Your task to perform on an android device: open app "Roku - Official Remote Control" (install if not already installed) Image 0: 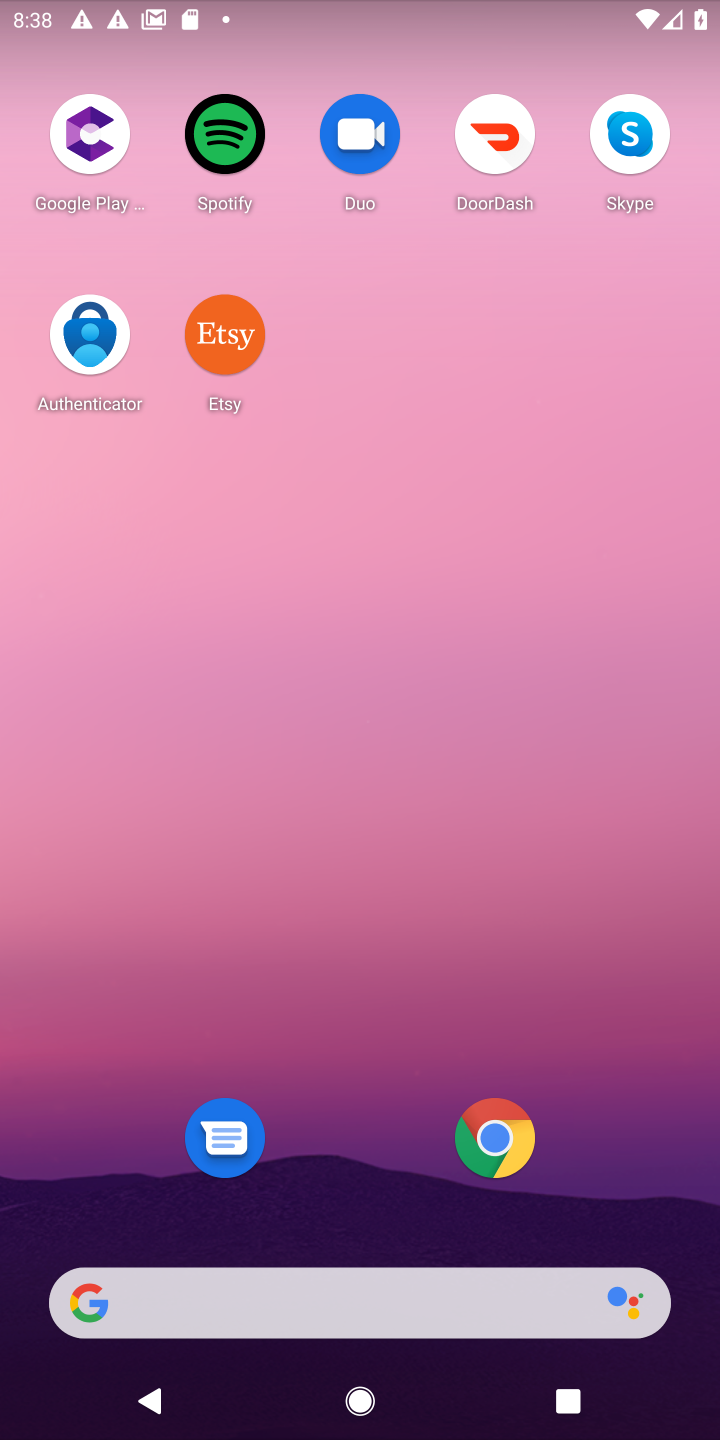
Step 0: drag from (447, 1210) to (481, 99)
Your task to perform on an android device: open app "Roku - Official Remote Control" (install if not already installed) Image 1: 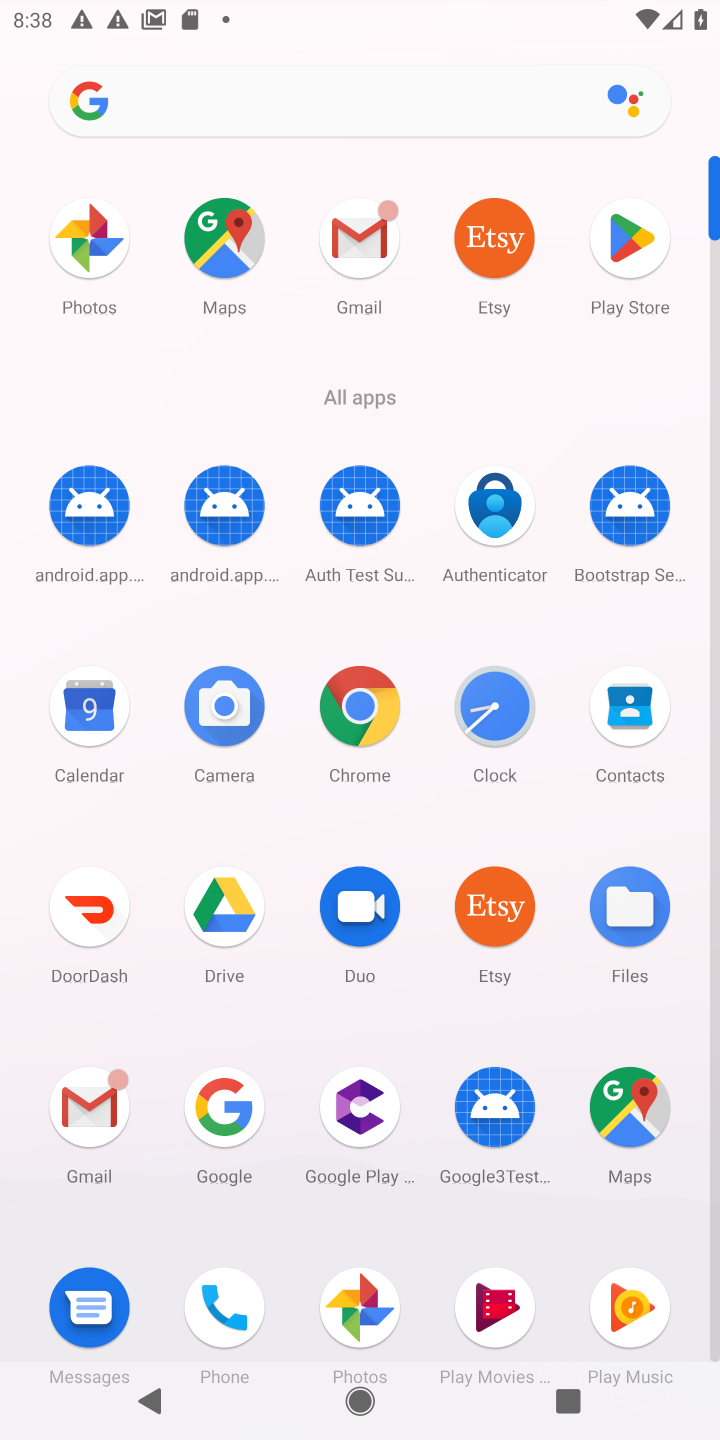
Step 1: click (623, 267)
Your task to perform on an android device: open app "Roku - Official Remote Control" (install if not already installed) Image 2: 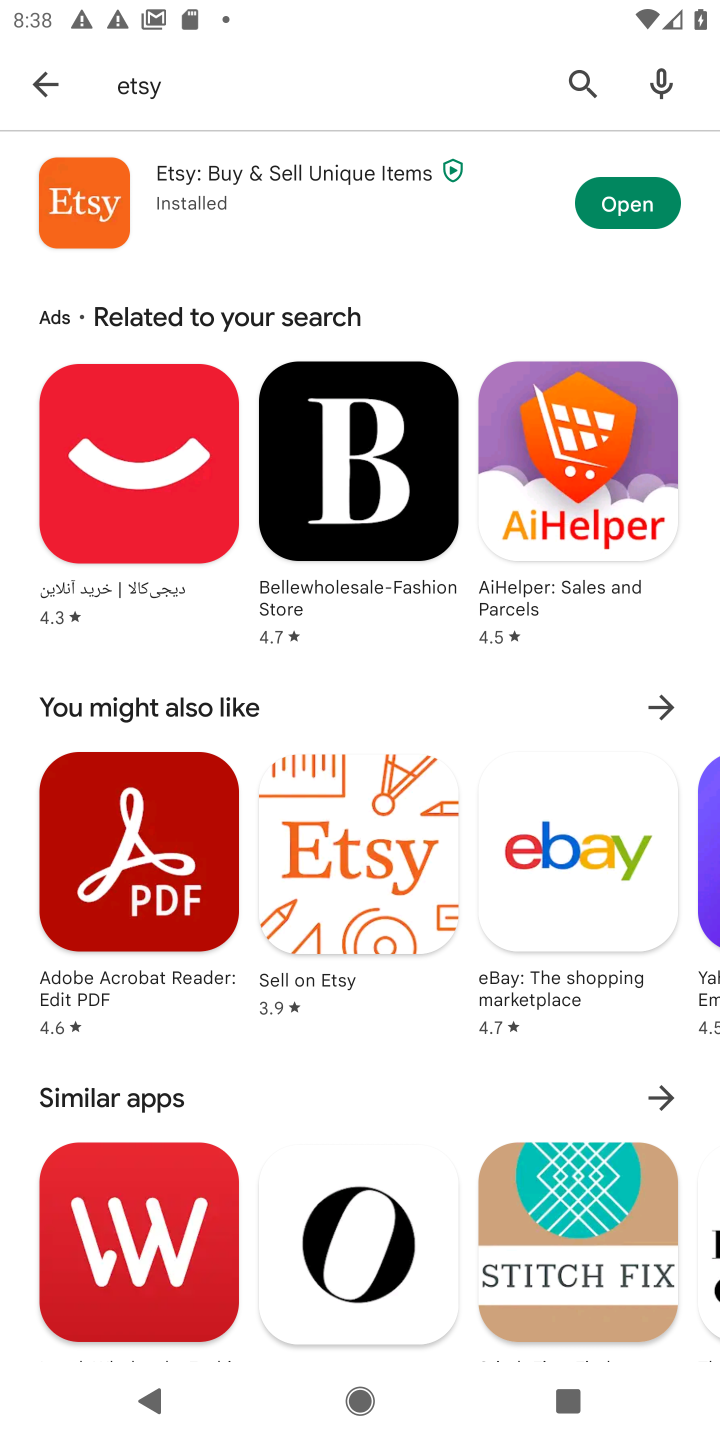
Step 2: click (552, 94)
Your task to perform on an android device: open app "Roku - Official Remote Control" (install if not already installed) Image 3: 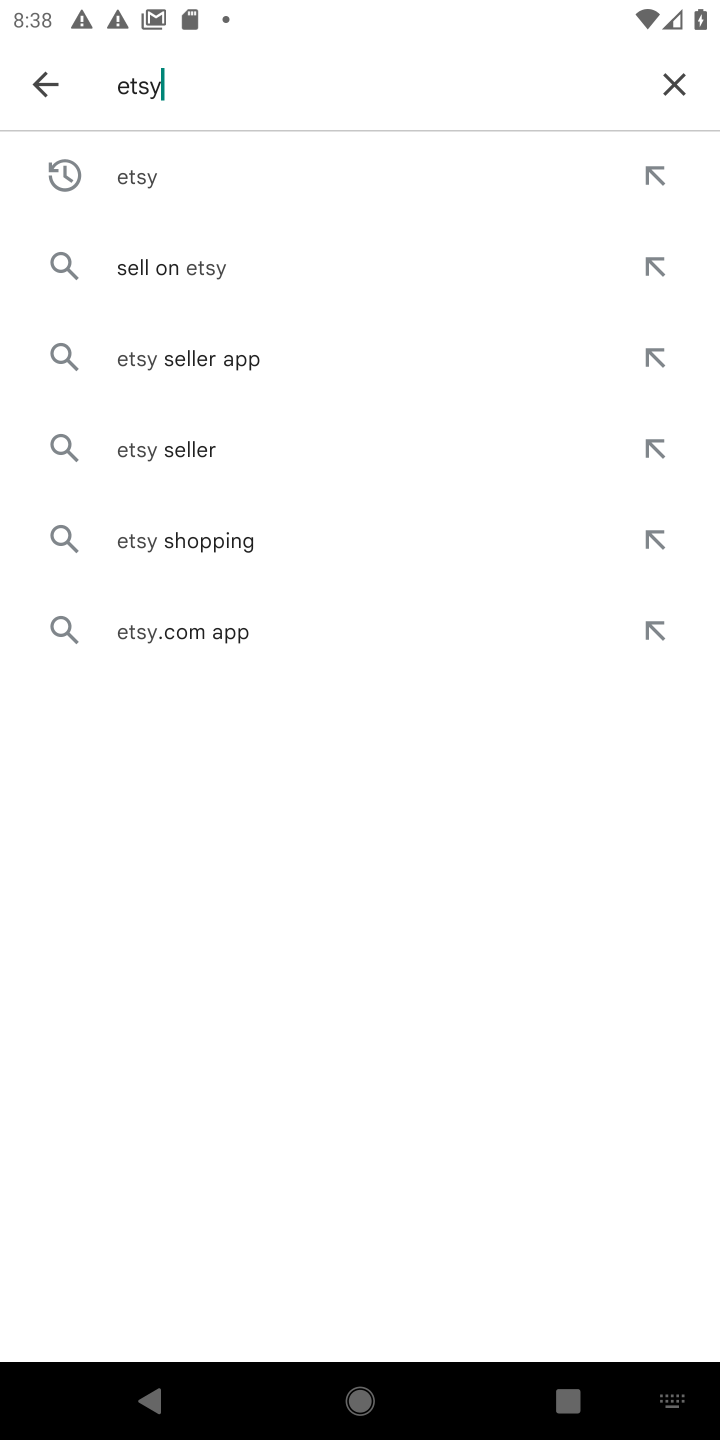
Step 3: click (684, 102)
Your task to perform on an android device: open app "Roku - Official Remote Control" (install if not already installed) Image 4: 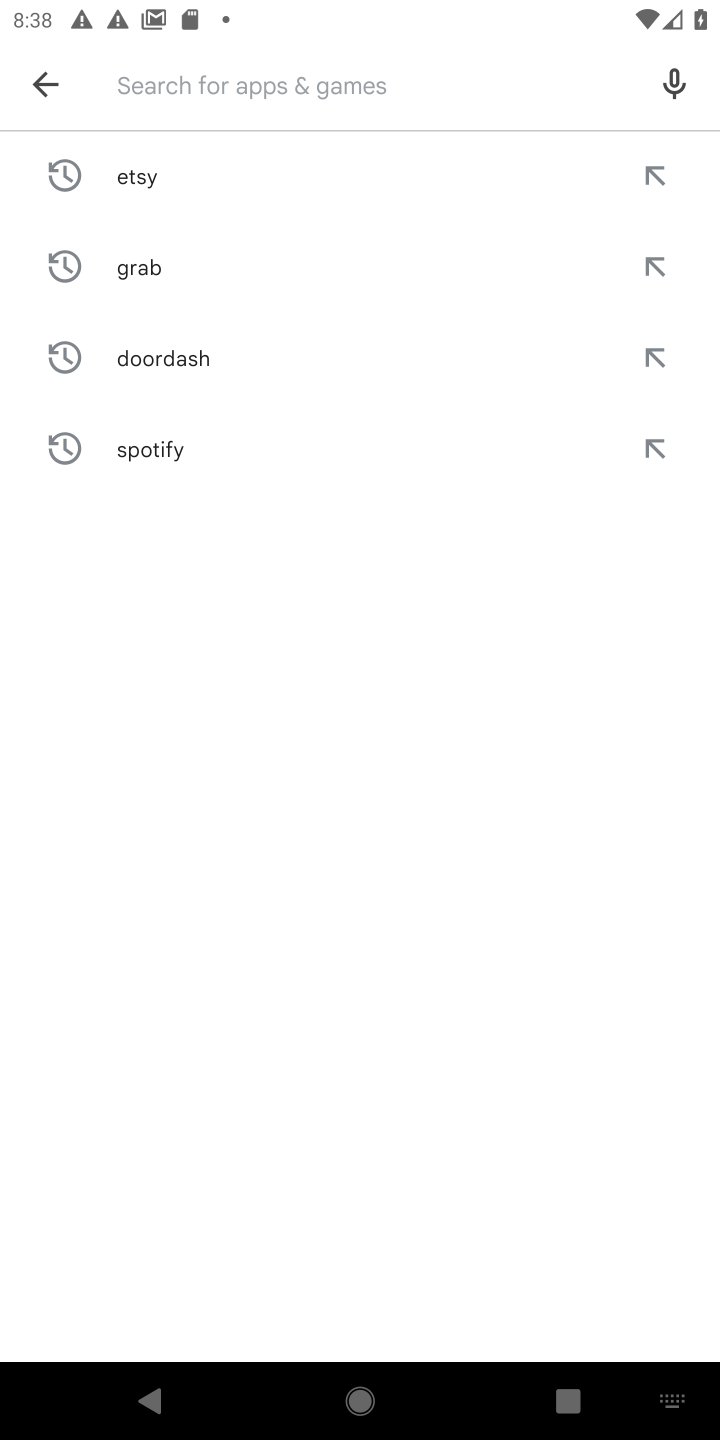
Step 4: type "roku"
Your task to perform on an android device: open app "Roku - Official Remote Control" (install if not already installed) Image 5: 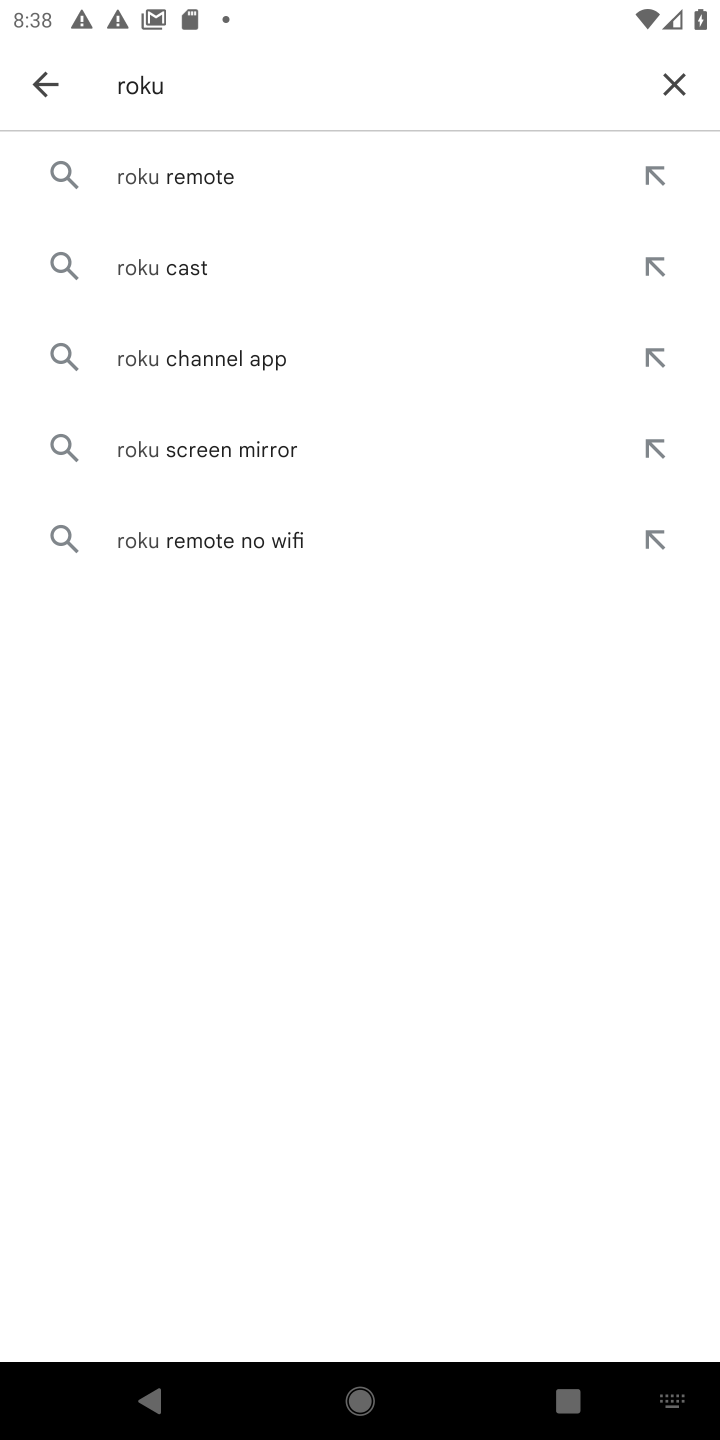
Step 5: click (203, 172)
Your task to perform on an android device: open app "Roku - Official Remote Control" (install if not already installed) Image 6: 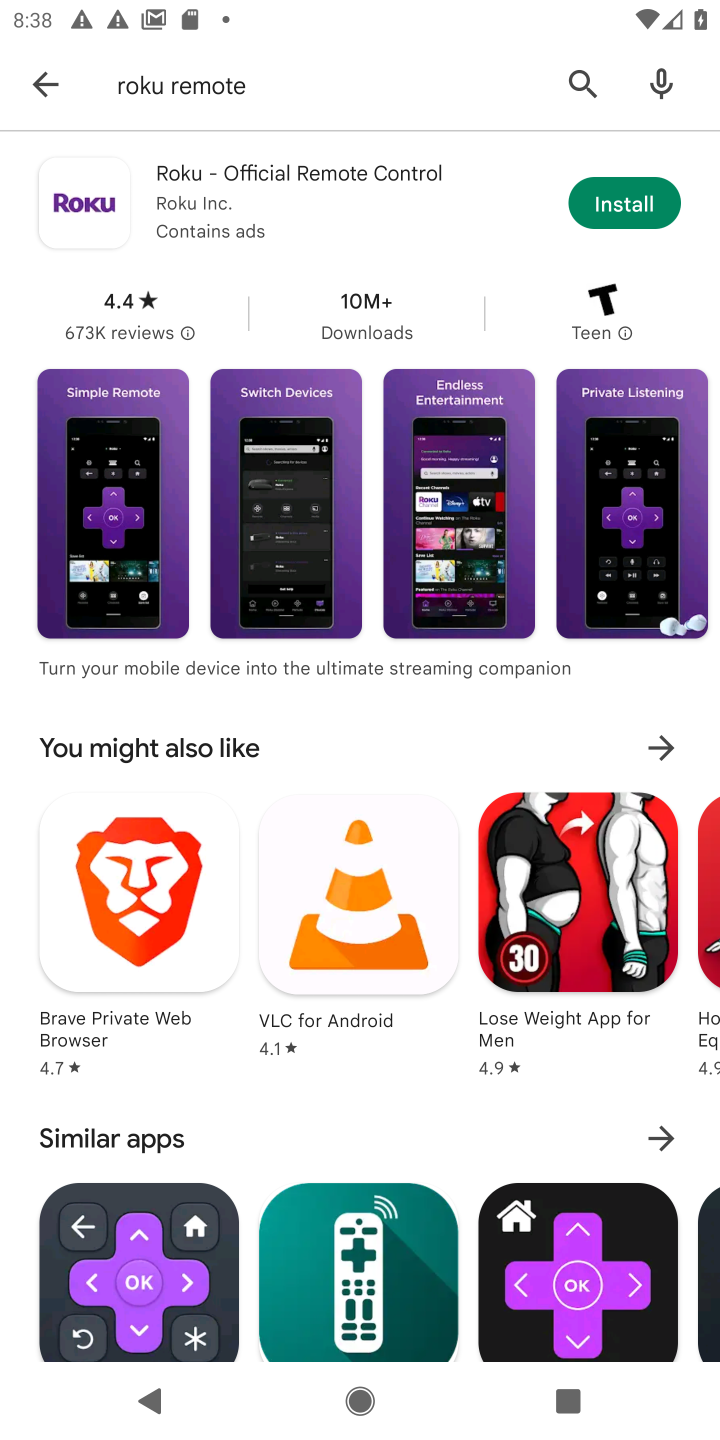
Step 6: click (602, 231)
Your task to perform on an android device: open app "Roku - Official Remote Control" (install if not already installed) Image 7: 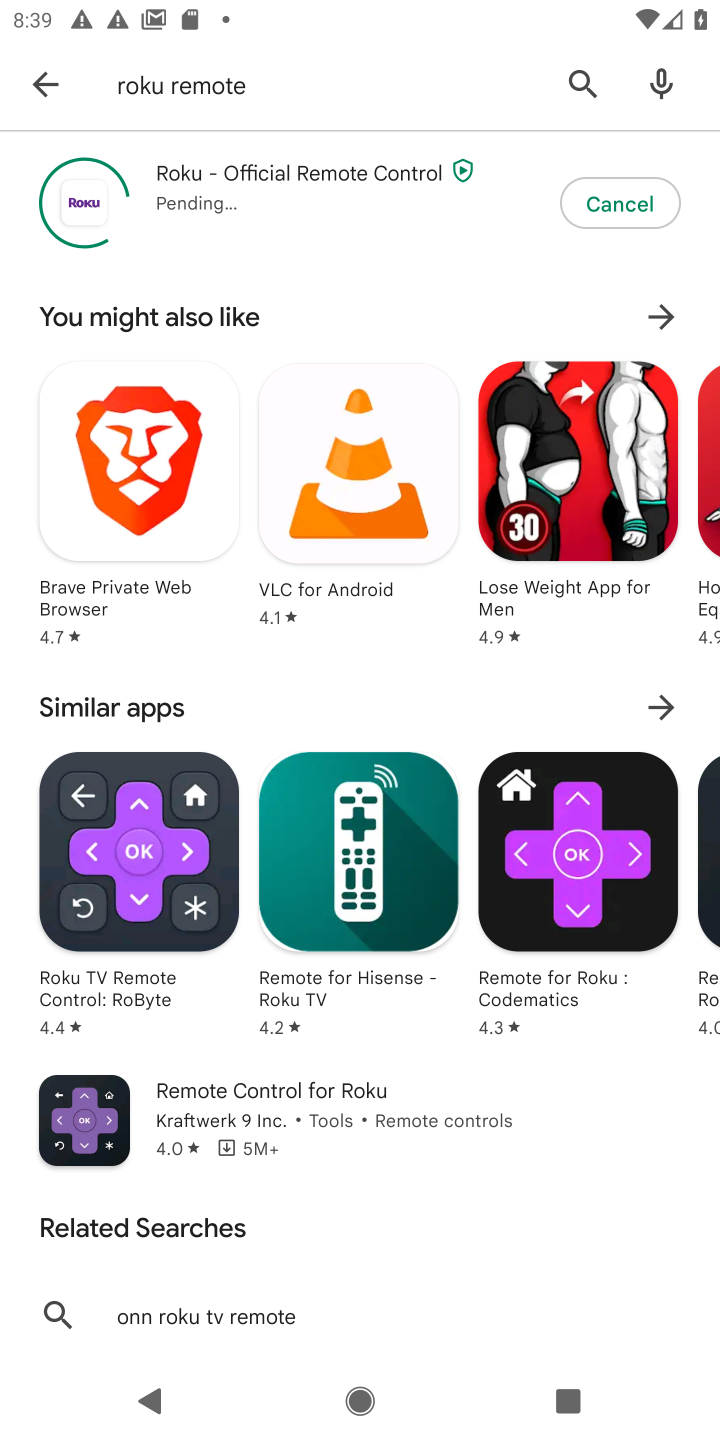
Step 7: task complete